Your task to perform on an android device: Open Google Chrome and click the shortcut for Amazon.com Image 0: 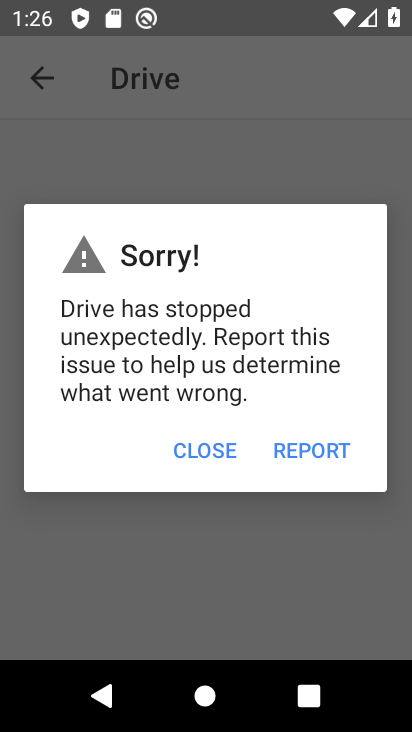
Step 0: press home button
Your task to perform on an android device: Open Google Chrome and click the shortcut for Amazon.com Image 1: 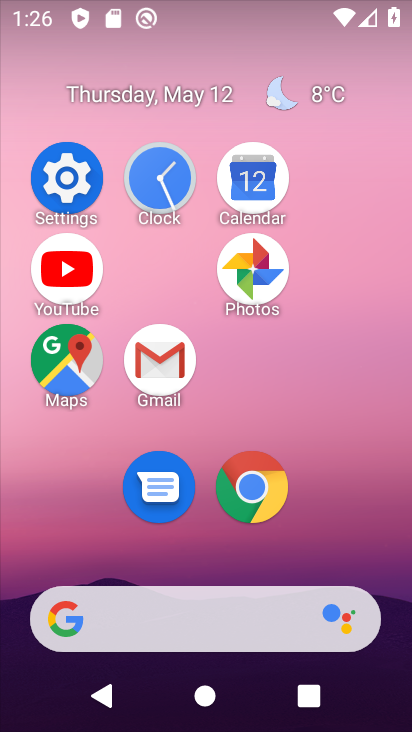
Step 1: click (239, 484)
Your task to perform on an android device: Open Google Chrome and click the shortcut for Amazon.com Image 2: 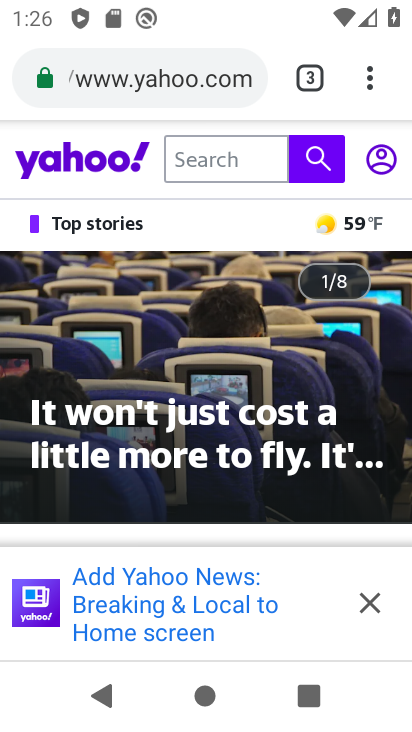
Step 2: click (314, 74)
Your task to perform on an android device: Open Google Chrome and click the shortcut for Amazon.com Image 3: 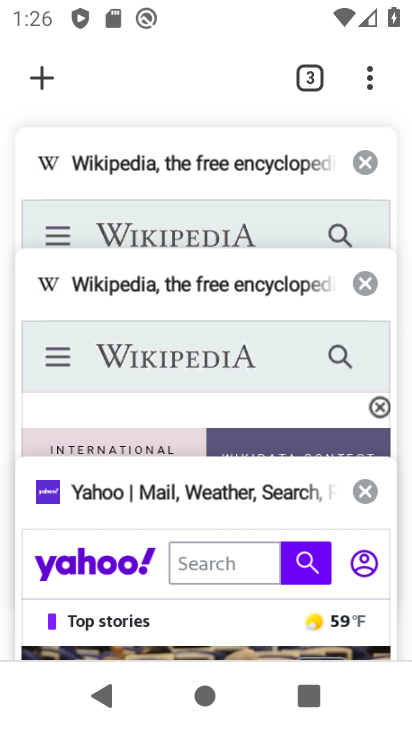
Step 3: click (43, 72)
Your task to perform on an android device: Open Google Chrome and click the shortcut for Amazon.com Image 4: 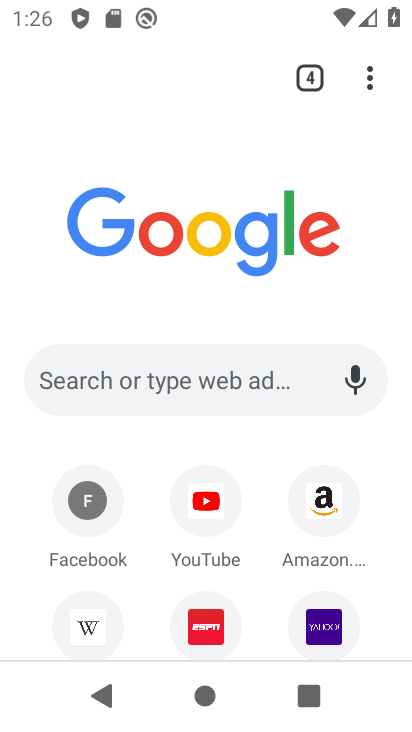
Step 4: click (308, 501)
Your task to perform on an android device: Open Google Chrome and click the shortcut for Amazon.com Image 5: 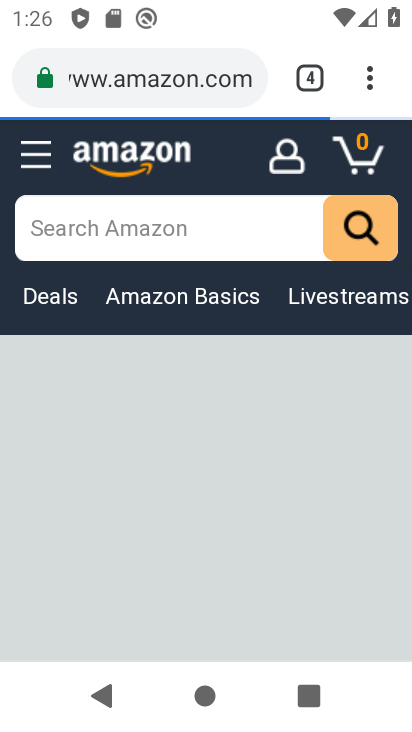
Step 5: click (366, 79)
Your task to perform on an android device: Open Google Chrome and click the shortcut for Amazon.com Image 6: 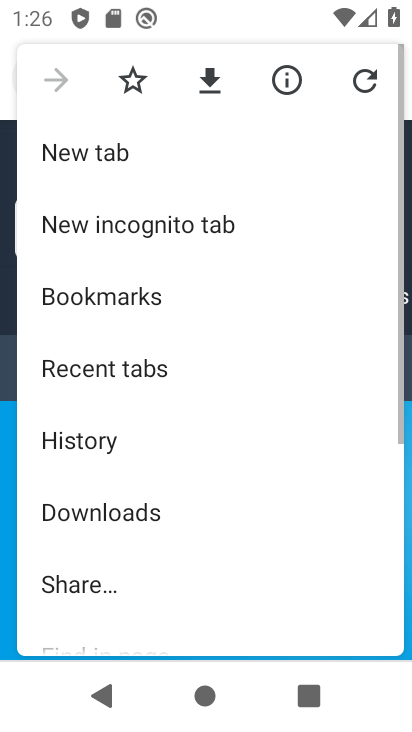
Step 6: drag from (183, 532) to (244, 235)
Your task to perform on an android device: Open Google Chrome and click the shortcut for Amazon.com Image 7: 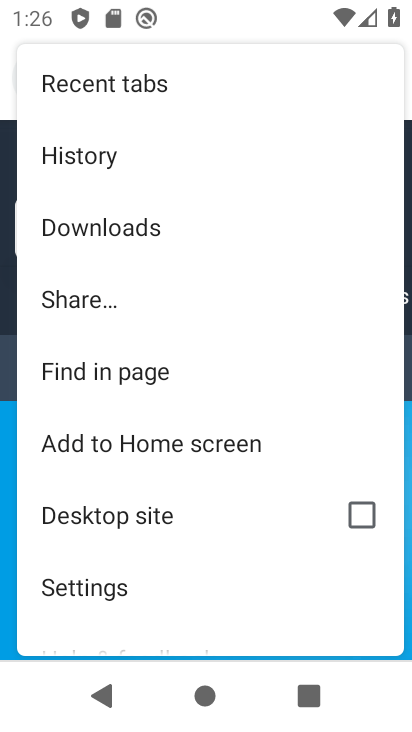
Step 7: click (214, 446)
Your task to perform on an android device: Open Google Chrome and click the shortcut for Amazon.com Image 8: 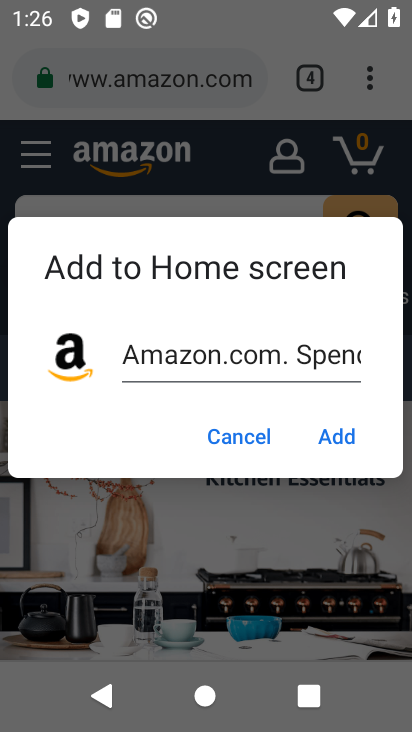
Step 8: click (340, 442)
Your task to perform on an android device: Open Google Chrome and click the shortcut for Amazon.com Image 9: 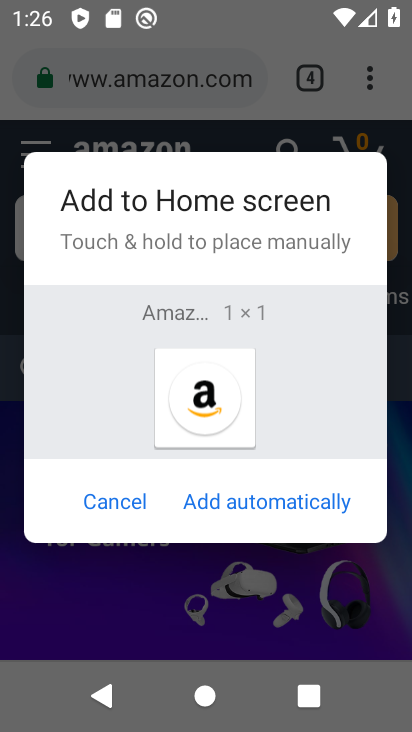
Step 9: click (310, 496)
Your task to perform on an android device: Open Google Chrome and click the shortcut for Amazon.com Image 10: 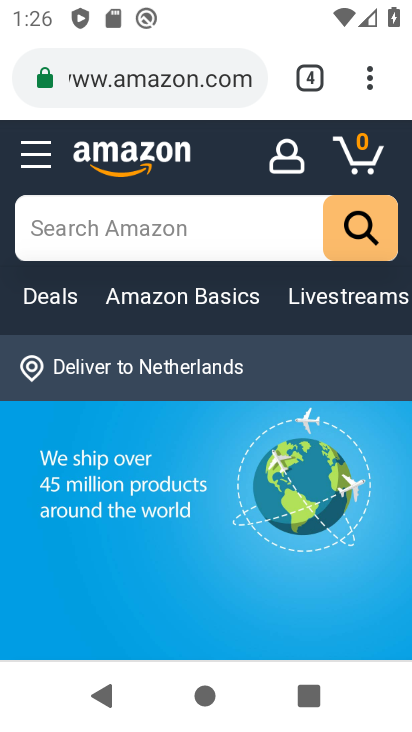
Step 10: task complete